Your task to perform on an android device: uninstall "Google Pay: Save, Pay, Manage" Image 0: 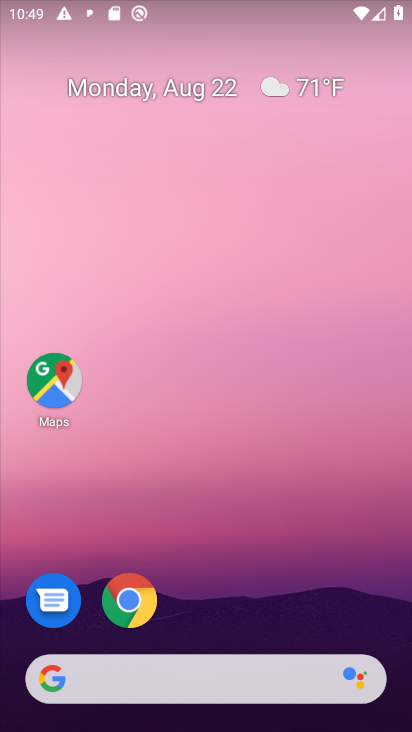
Step 0: drag from (242, 439) to (275, 39)
Your task to perform on an android device: uninstall "Google Pay: Save, Pay, Manage" Image 1: 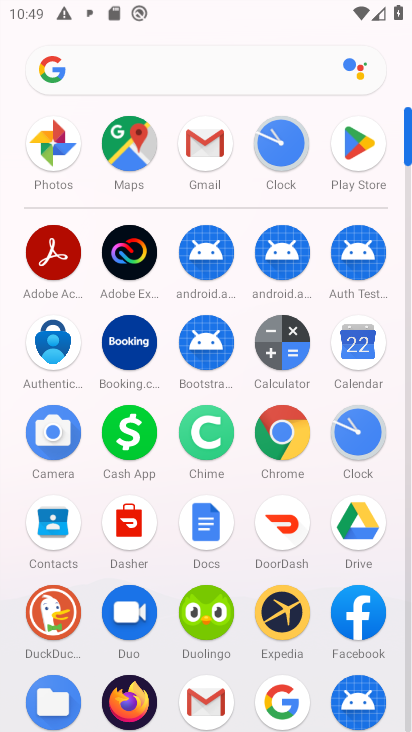
Step 1: click (330, 149)
Your task to perform on an android device: uninstall "Google Pay: Save, Pay, Manage" Image 2: 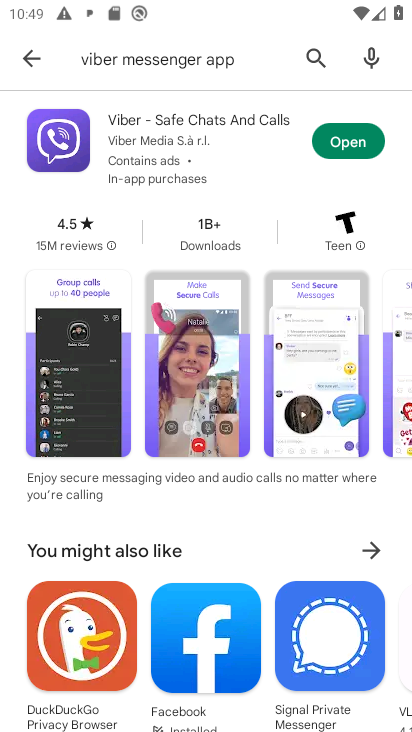
Step 2: click (321, 56)
Your task to perform on an android device: uninstall "Google Pay: Save, Pay, Manage" Image 3: 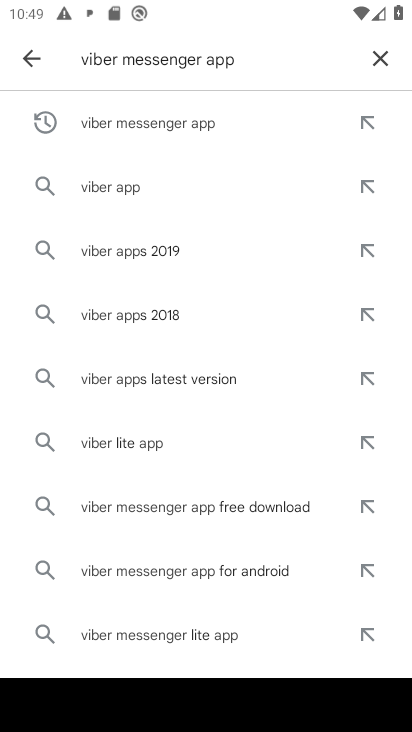
Step 3: click (376, 48)
Your task to perform on an android device: uninstall "Google Pay: Save, Pay, Manage" Image 4: 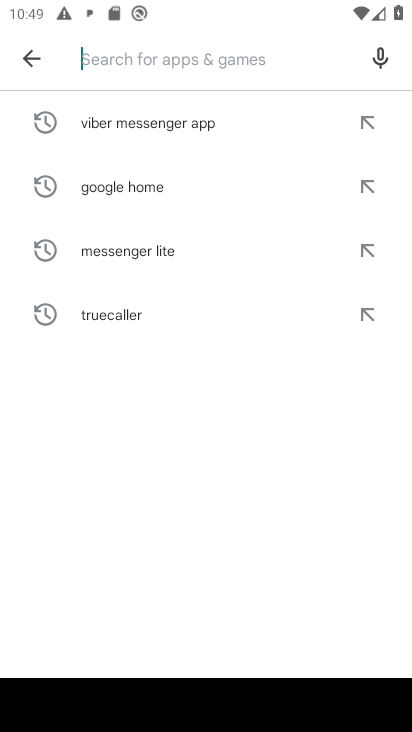
Step 4: type "Google Pay: Save, Pay, Manage"
Your task to perform on an android device: uninstall "Google Pay: Save, Pay, Manage" Image 5: 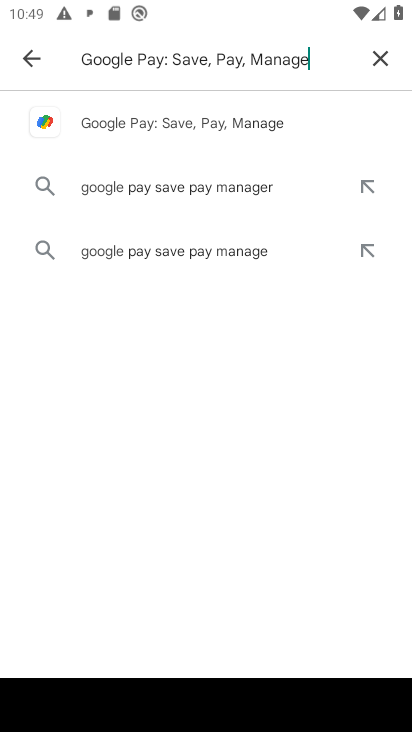
Step 5: type ""
Your task to perform on an android device: uninstall "Google Pay: Save, Pay, Manage" Image 6: 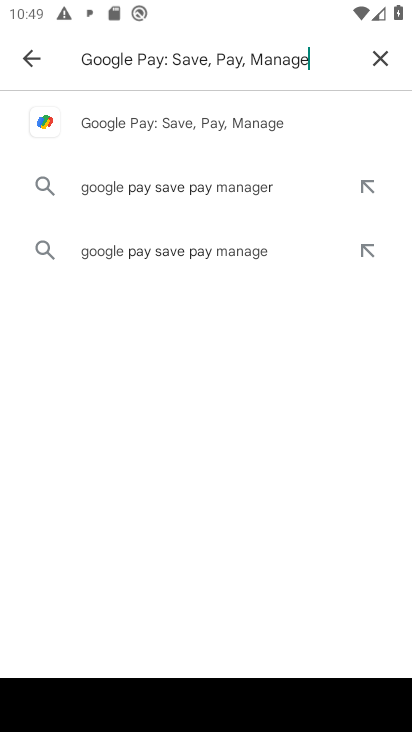
Step 6: click (176, 113)
Your task to perform on an android device: uninstall "Google Pay: Save, Pay, Manage" Image 7: 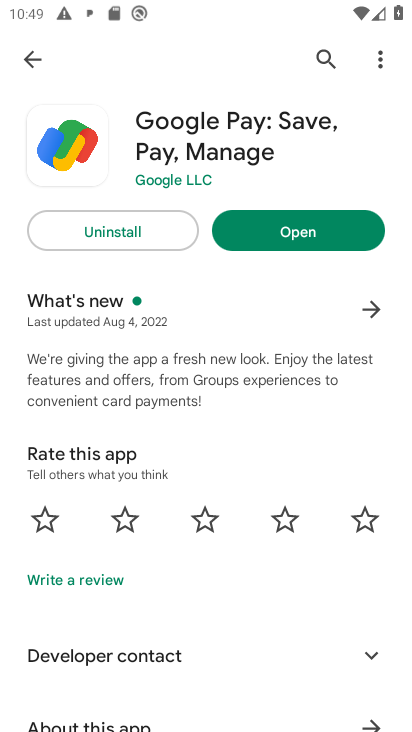
Step 7: click (105, 235)
Your task to perform on an android device: uninstall "Google Pay: Save, Pay, Manage" Image 8: 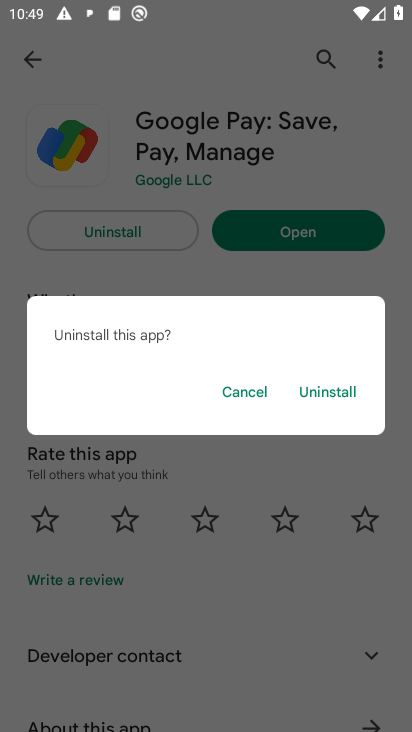
Step 8: click (328, 390)
Your task to perform on an android device: uninstall "Google Pay: Save, Pay, Manage" Image 9: 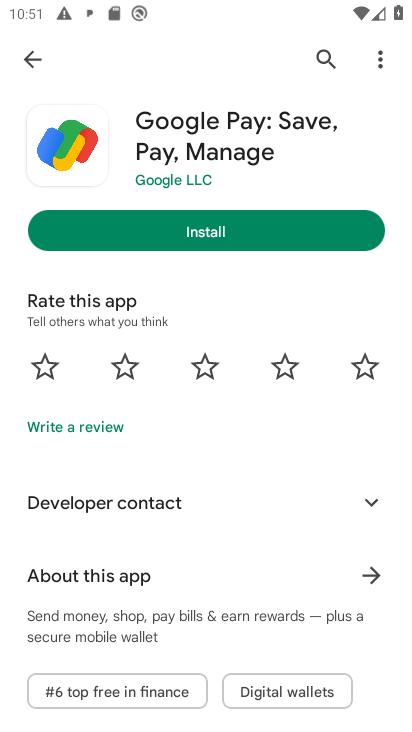
Step 9: task complete